Your task to perform on an android device: Search for Mexican restaurants on Maps Image 0: 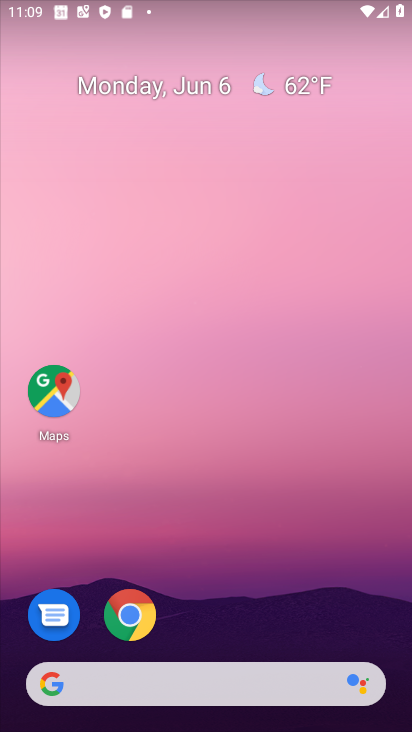
Step 0: click (33, 421)
Your task to perform on an android device: Search for Mexican restaurants on Maps Image 1: 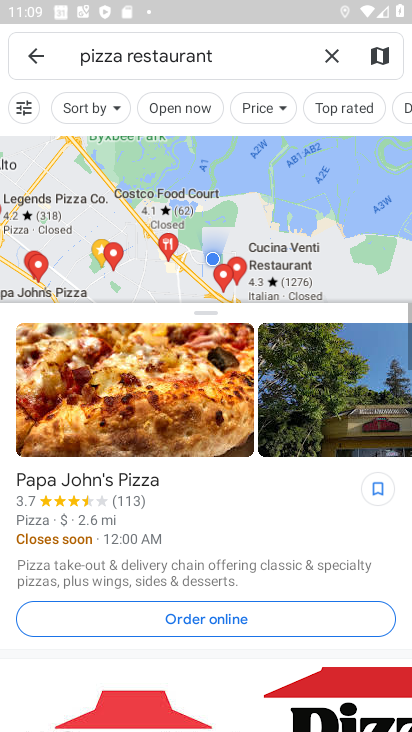
Step 1: click (327, 53)
Your task to perform on an android device: Search for Mexican restaurants on Maps Image 2: 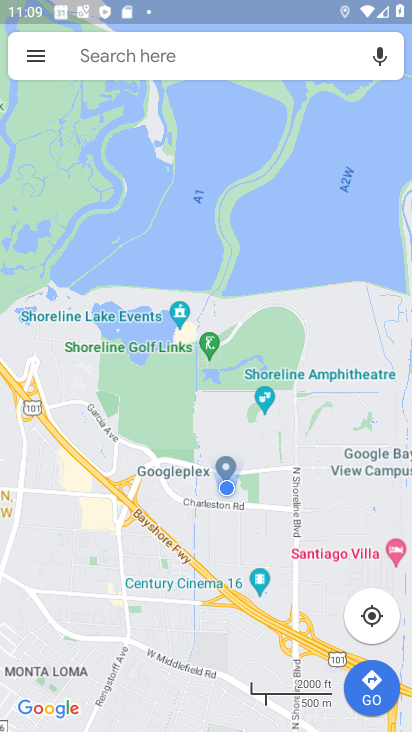
Step 2: click (130, 50)
Your task to perform on an android device: Search for Mexican restaurants on Maps Image 3: 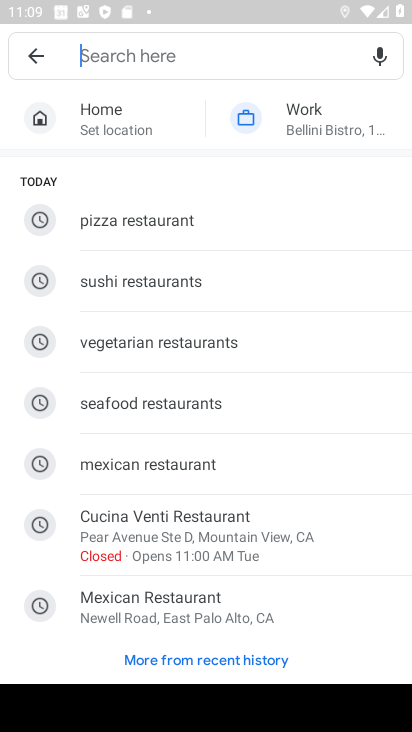
Step 3: click (226, 473)
Your task to perform on an android device: Search for Mexican restaurants on Maps Image 4: 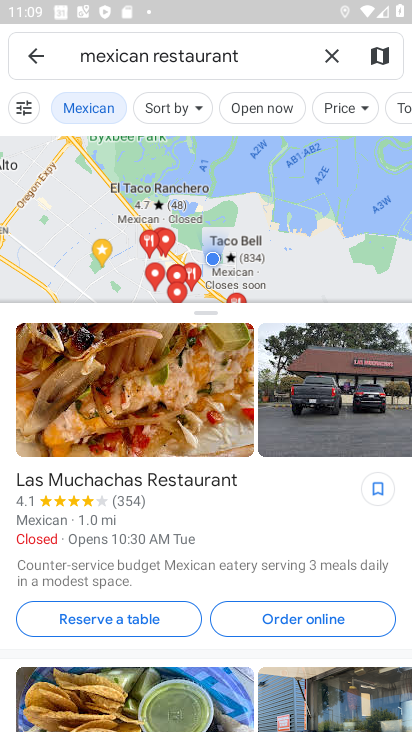
Step 4: task complete